Your task to perform on an android device: Search for vegetarian restaurants on Maps Image 0: 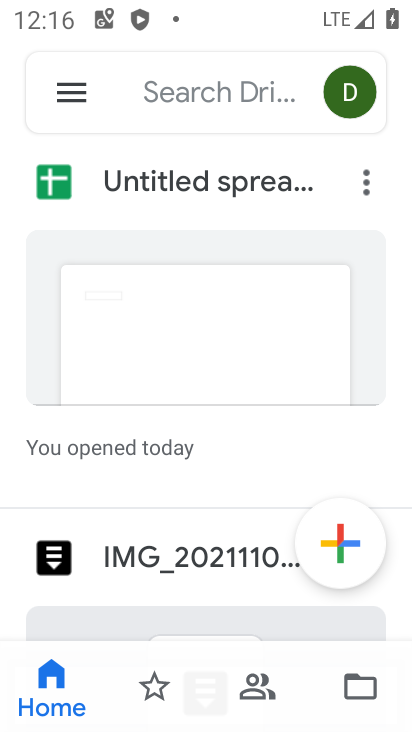
Step 0: press home button
Your task to perform on an android device: Search for vegetarian restaurants on Maps Image 1: 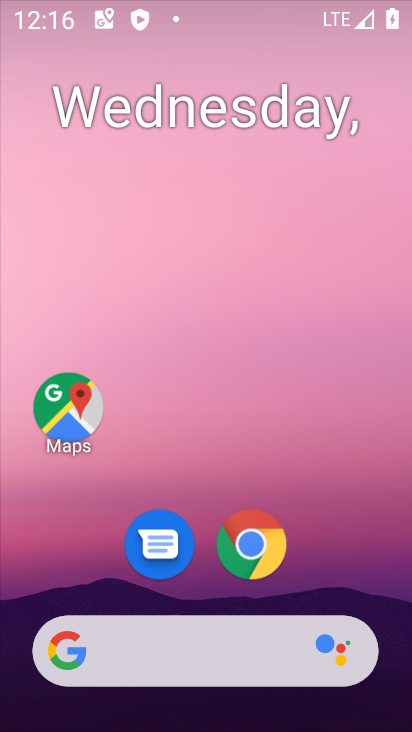
Step 1: drag from (392, 609) to (312, 83)
Your task to perform on an android device: Search for vegetarian restaurants on Maps Image 2: 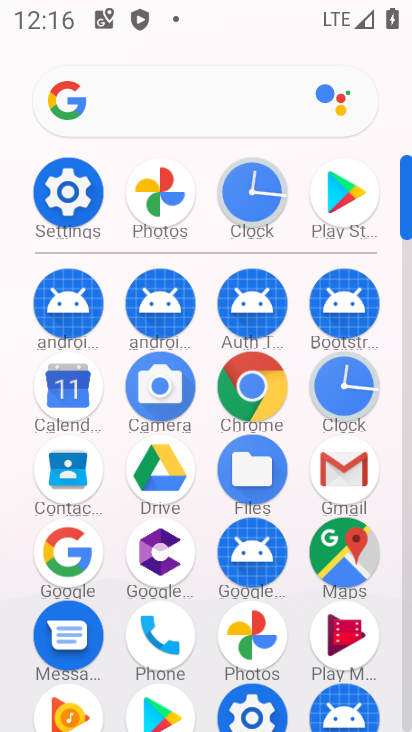
Step 2: click (353, 556)
Your task to perform on an android device: Search for vegetarian restaurants on Maps Image 3: 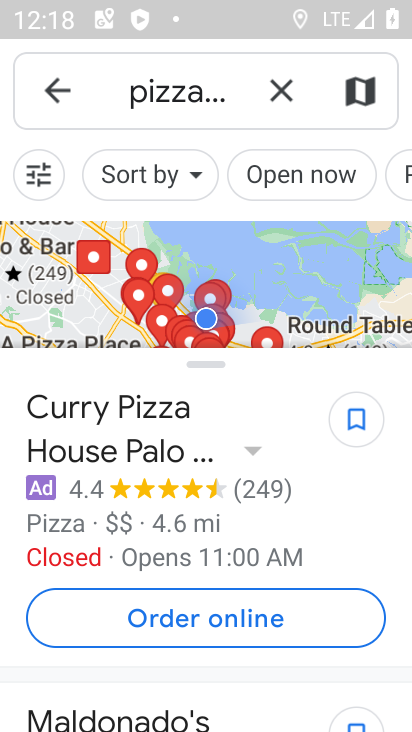
Step 3: click (280, 91)
Your task to perform on an android device: Search for vegetarian restaurants on Maps Image 4: 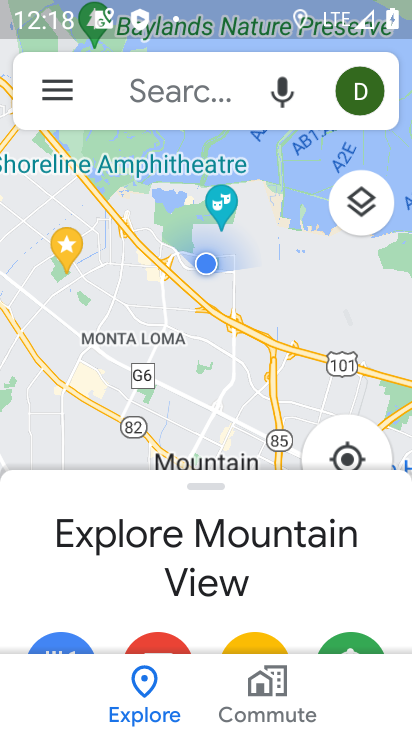
Step 4: click (186, 94)
Your task to perform on an android device: Search for vegetarian restaurants on Maps Image 5: 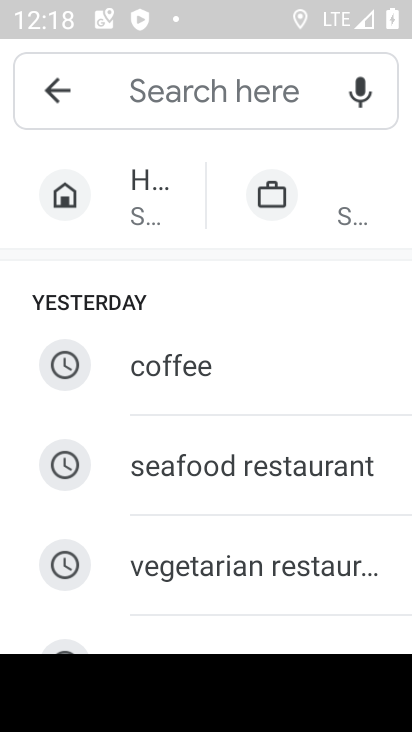
Step 5: click (219, 559)
Your task to perform on an android device: Search for vegetarian restaurants on Maps Image 6: 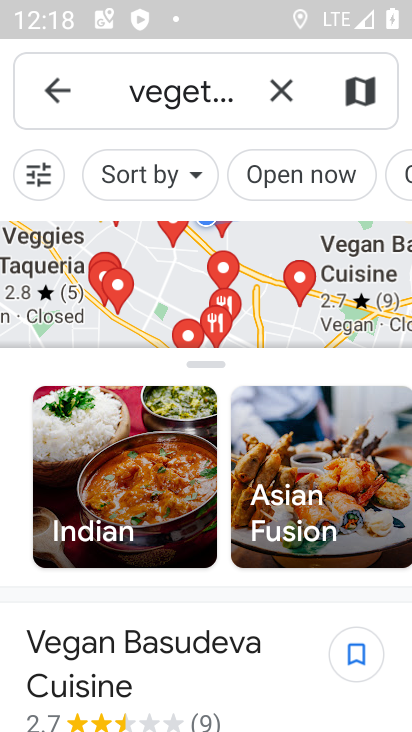
Step 6: task complete